Your task to perform on an android device: install app "Adobe Acrobat Reader: Edit PDF" Image 0: 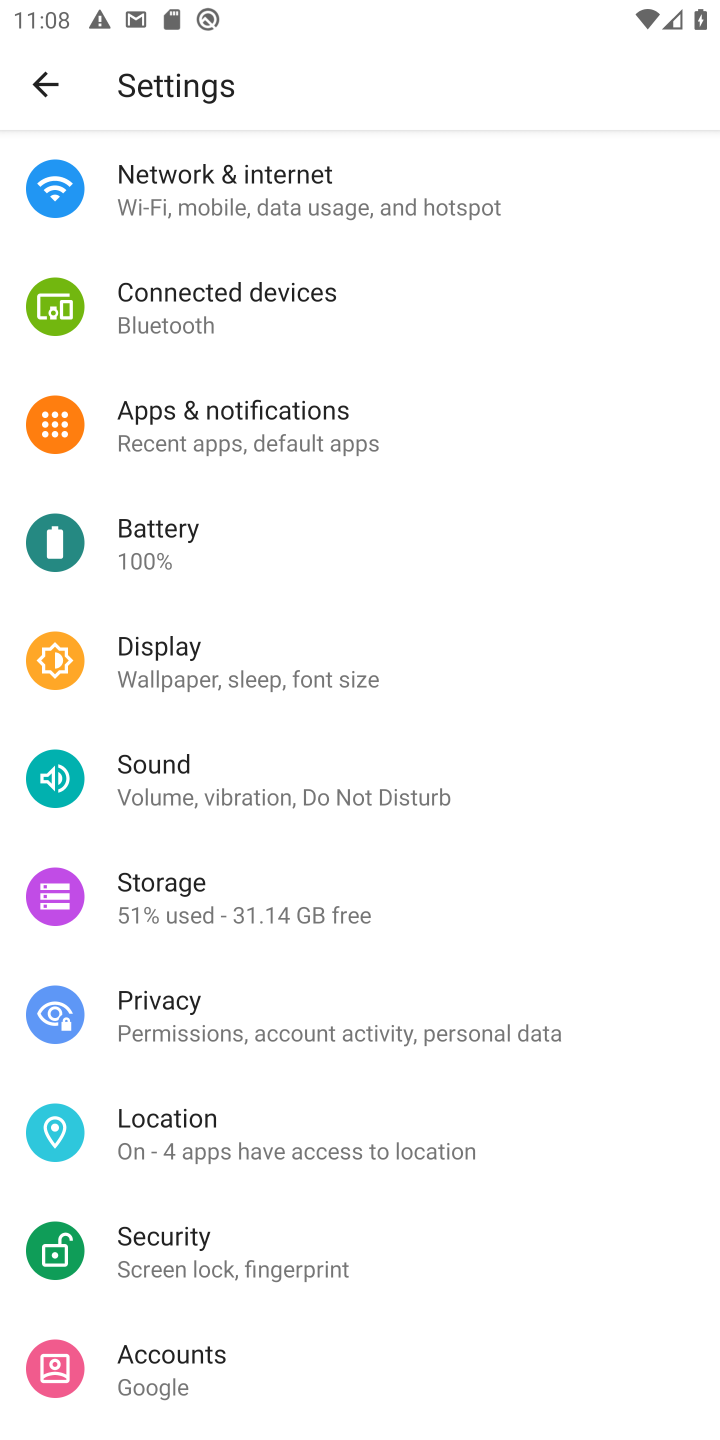
Step 0: press home button
Your task to perform on an android device: install app "Adobe Acrobat Reader: Edit PDF" Image 1: 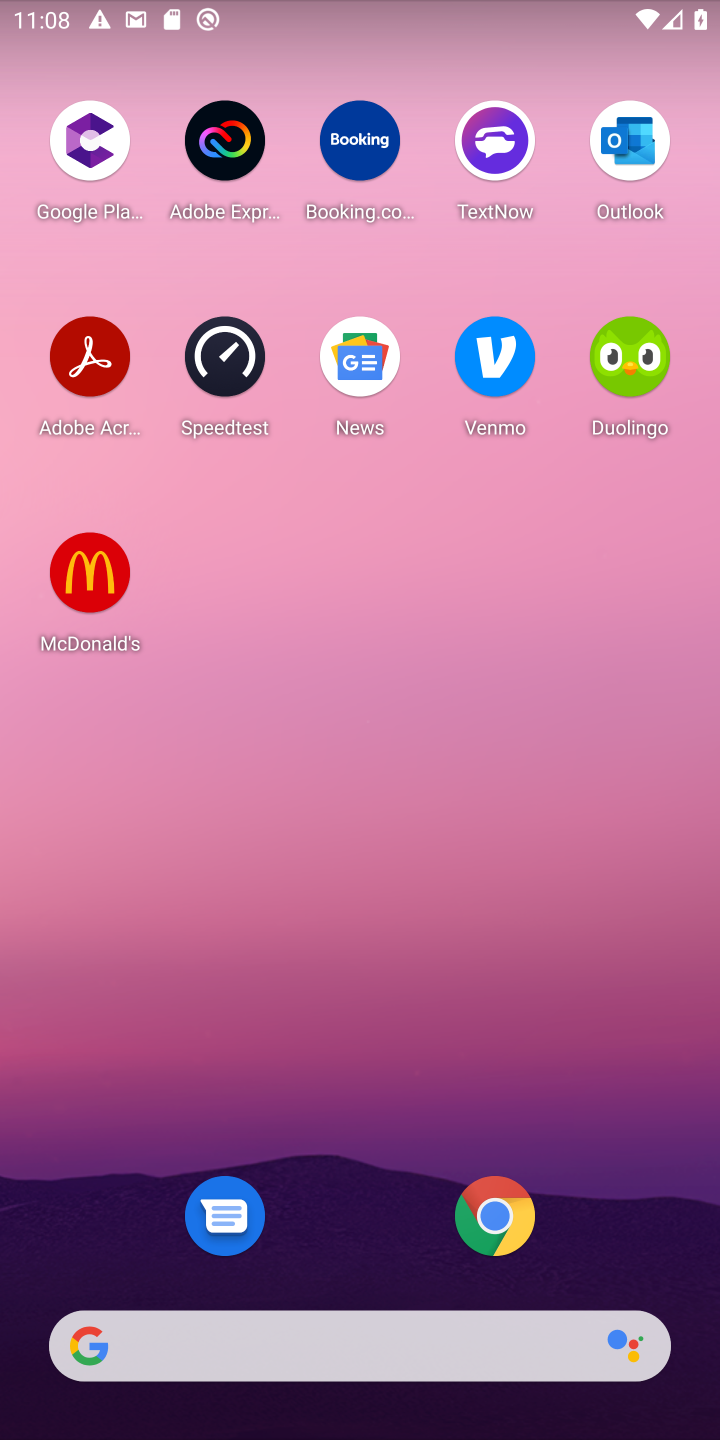
Step 1: drag from (279, 1349) to (325, 21)
Your task to perform on an android device: install app "Adobe Acrobat Reader: Edit PDF" Image 2: 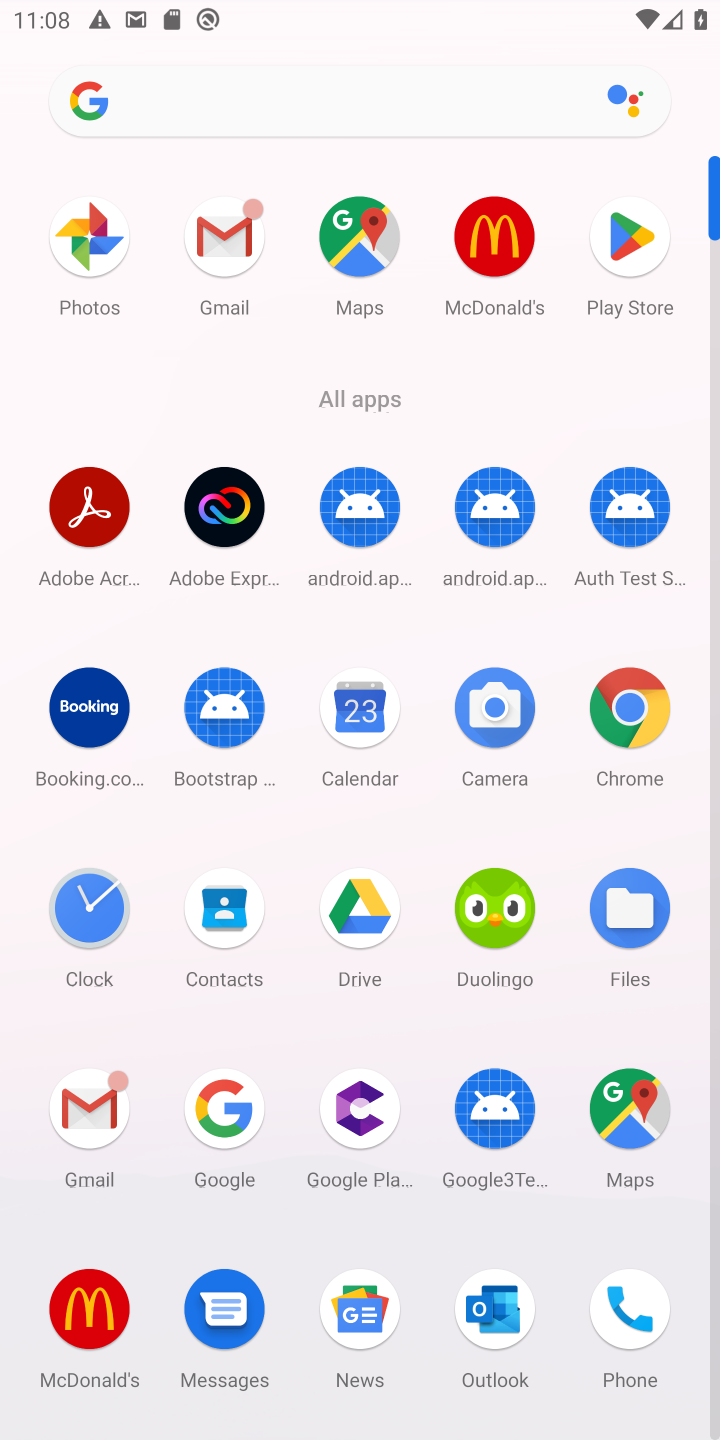
Step 2: click (620, 241)
Your task to perform on an android device: install app "Adobe Acrobat Reader: Edit PDF" Image 3: 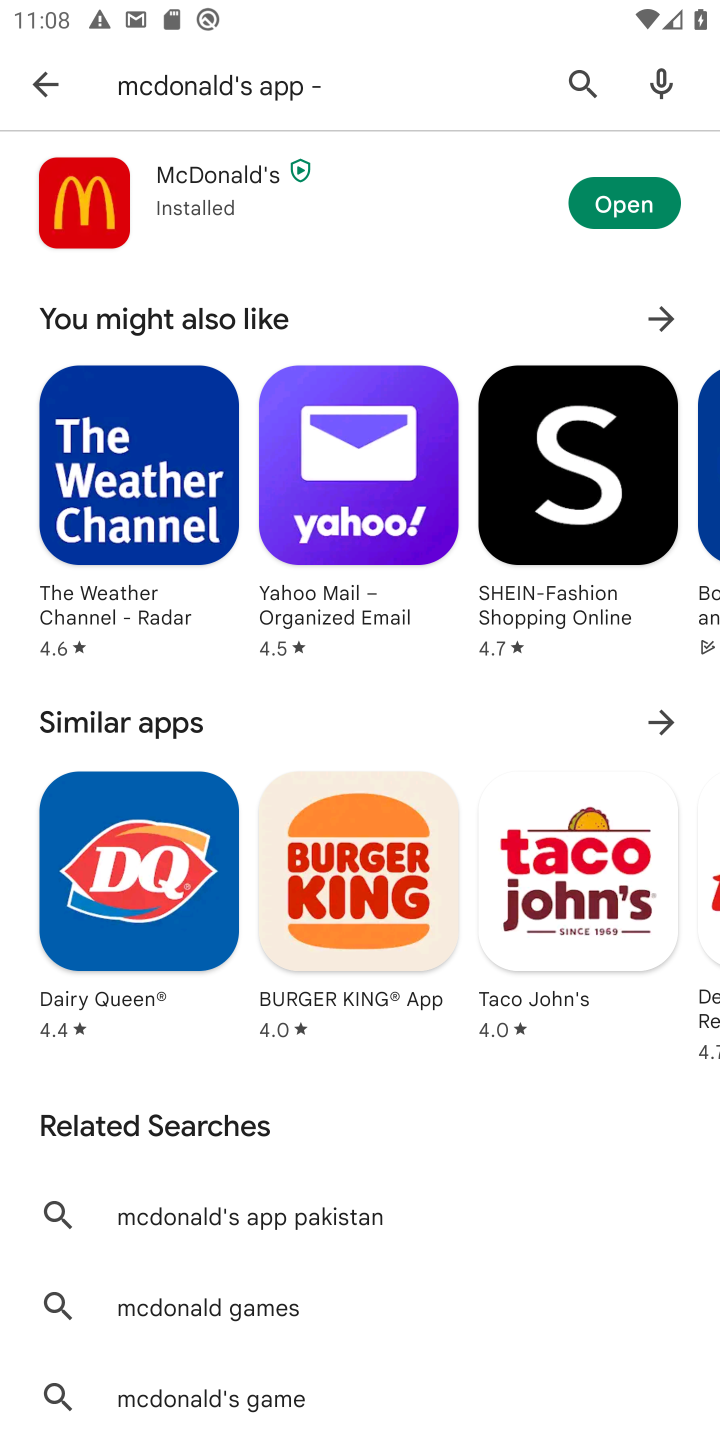
Step 3: press back button
Your task to perform on an android device: install app "Adobe Acrobat Reader: Edit PDF" Image 4: 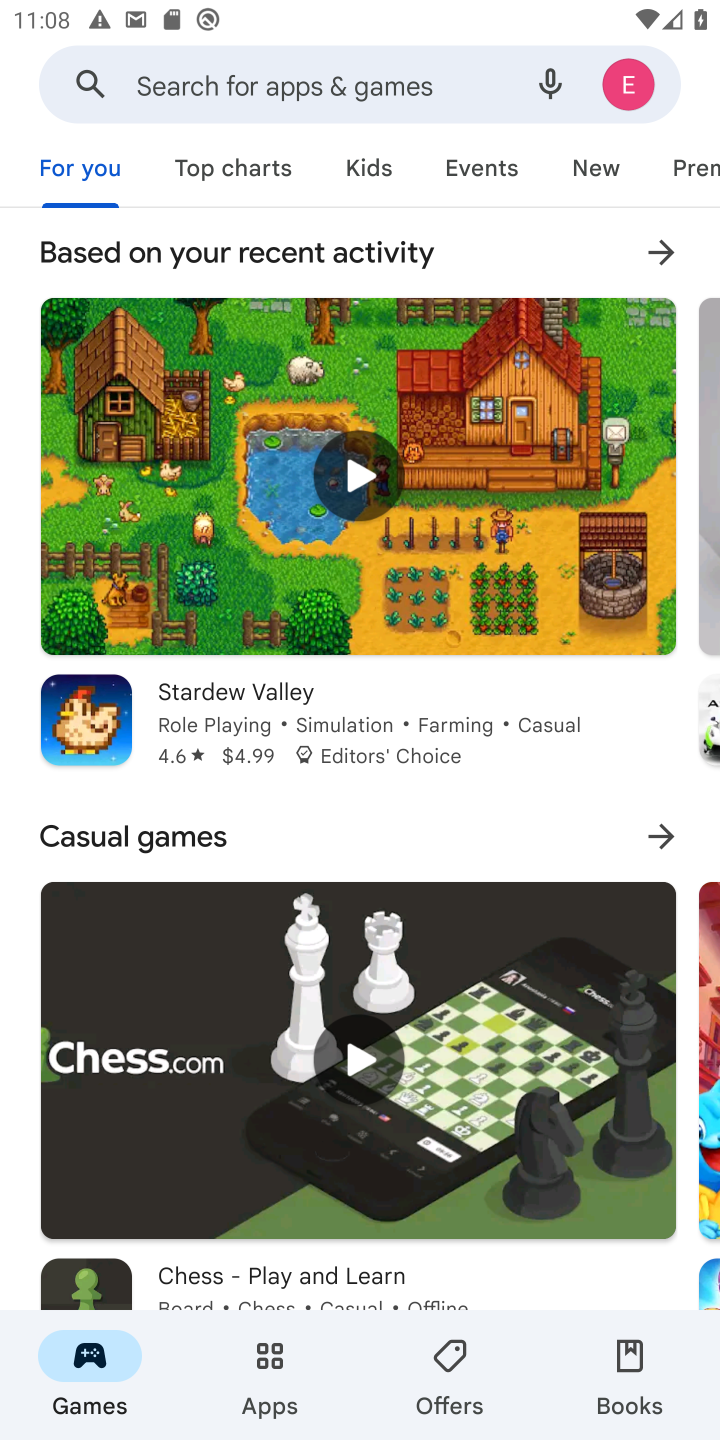
Step 4: click (293, 89)
Your task to perform on an android device: install app "Adobe Acrobat Reader: Edit PDF" Image 5: 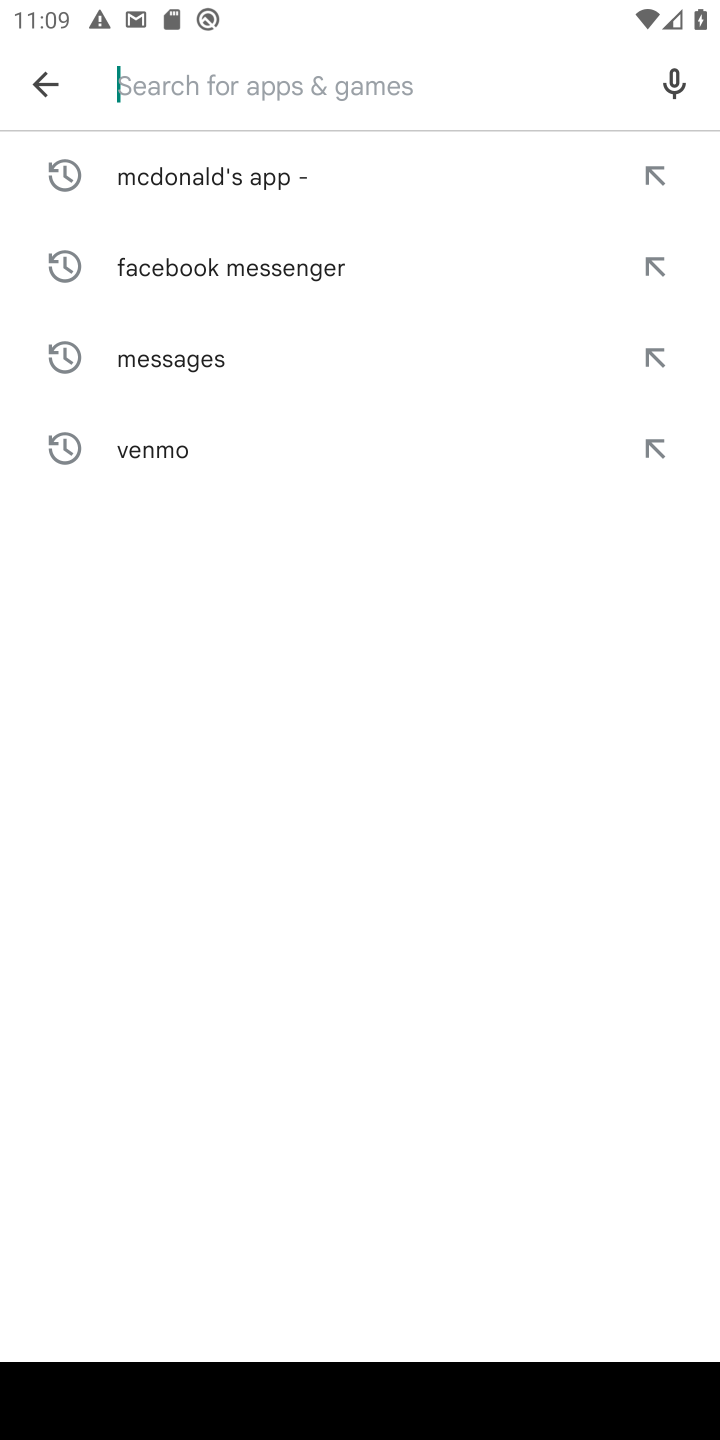
Step 5: click (234, 96)
Your task to perform on an android device: install app "Adobe Acrobat Reader: Edit PDF" Image 6: 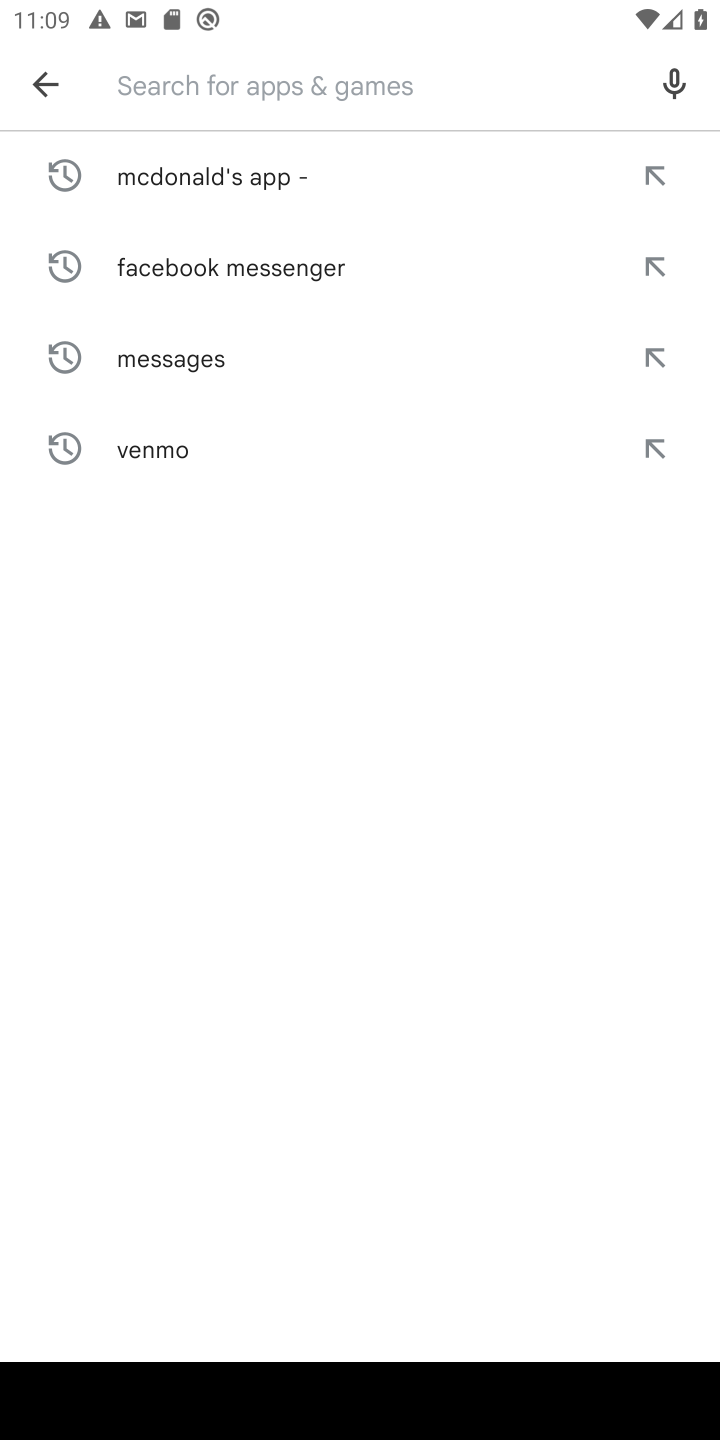
Step 6: type "Adobe Acrobat Reader: Edit PDF"
Your task to perform on an android device: install app "Adobe Acrobat Reader: Edit PDF" Image 7: 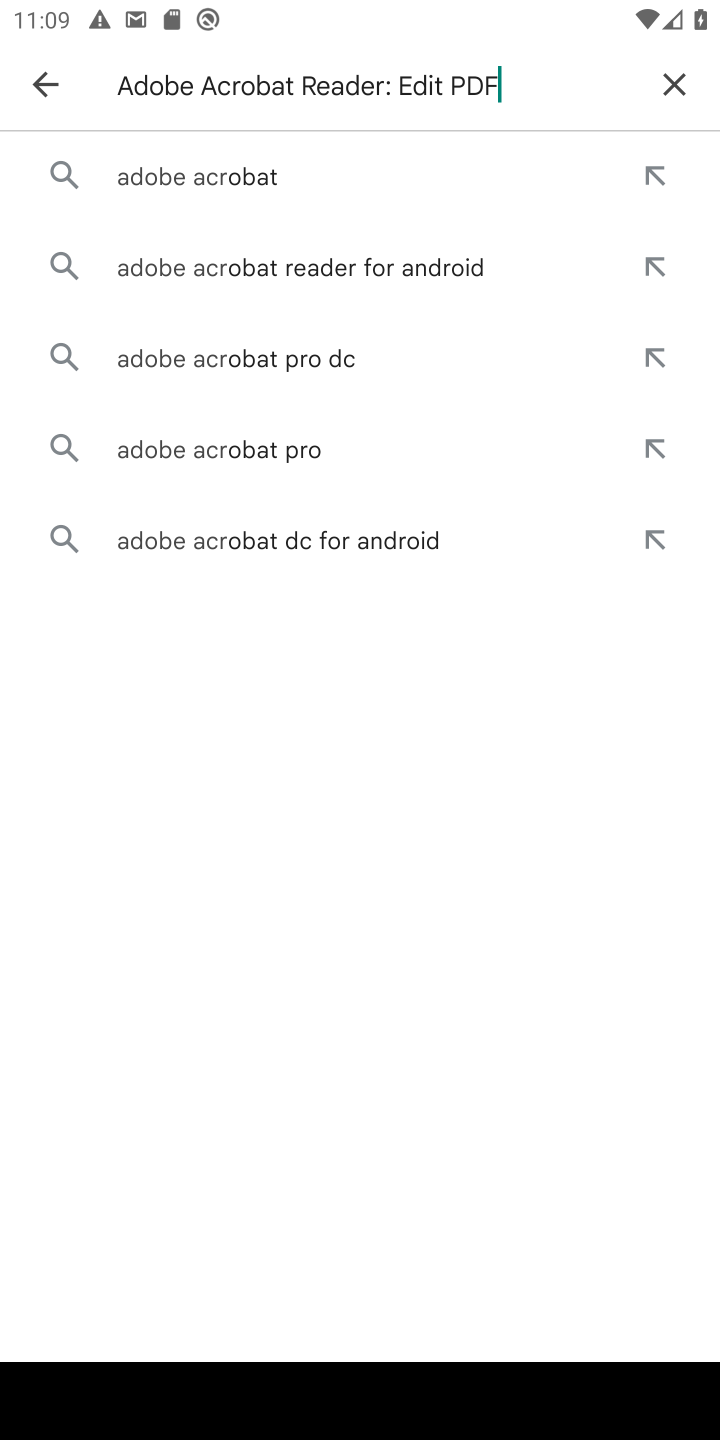
Step 7: type ""
Your task to perform on an android device: install app "Adobe Acrobat Reader: Edit PDF" Image 8: 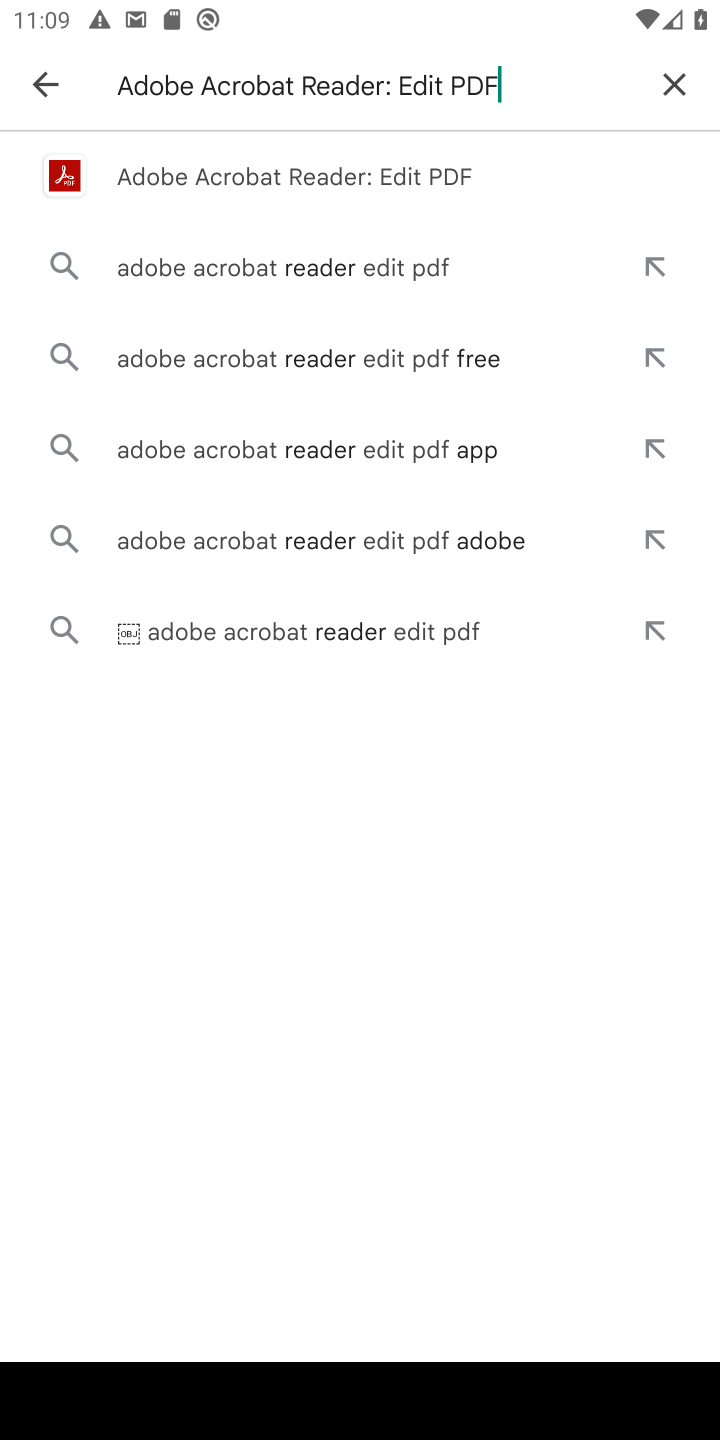
Step 8: click (309, 174)
Your task to perform on an android device: install app "Adobe Acrobat Reader: Edit PDF" Image 9: 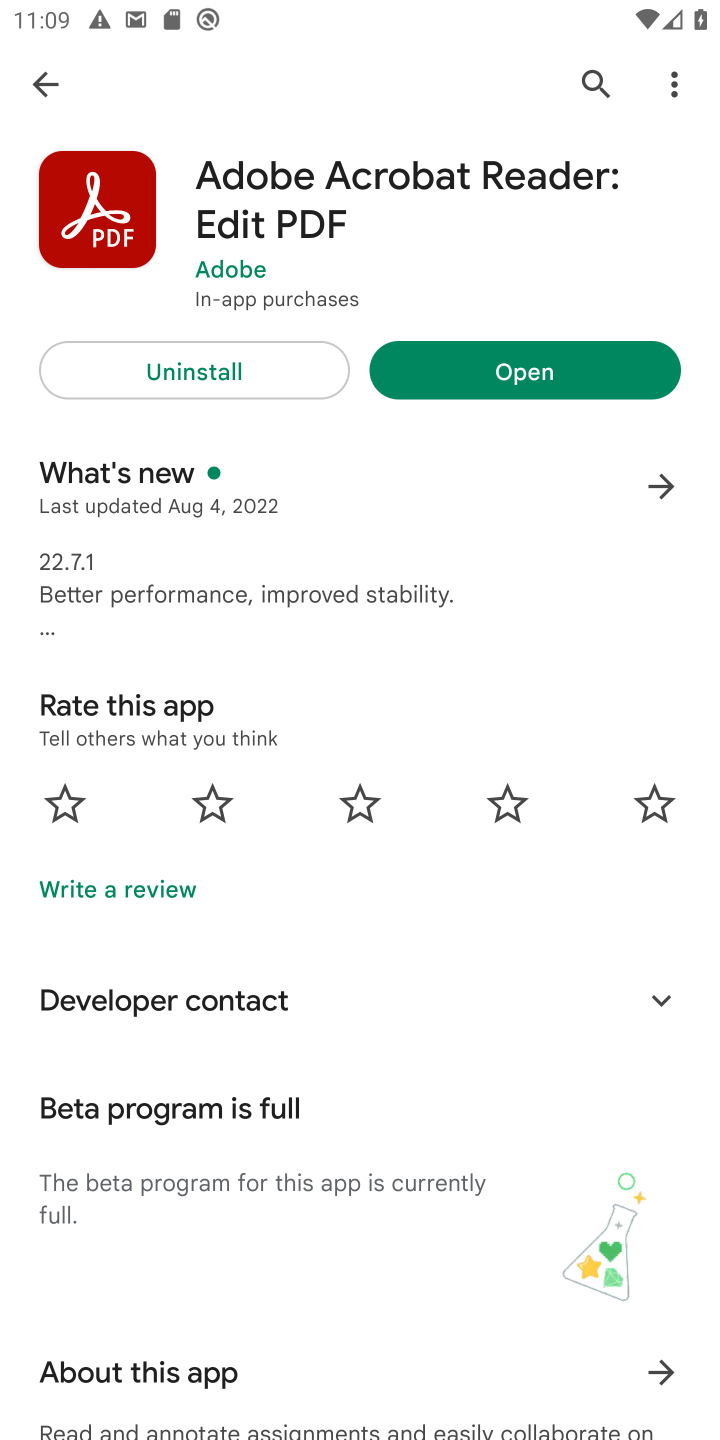
Step 9: task complete